Your task to perform on an android device: open app "Adobe Acrobat Reader" (install if not already installed) and go to login screen Image 0: 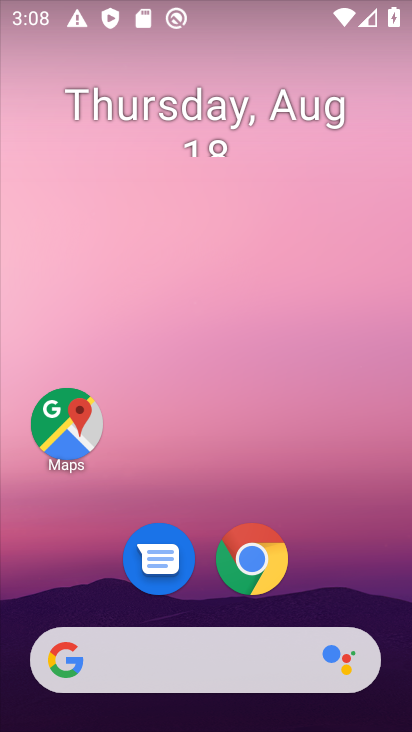
Step 0: drag from (285, 624) to (226, 2)
Your task to perform on an android device: open app "Adobe Acrobat Reader" (install if not already installed) and go to login screen Image 1: 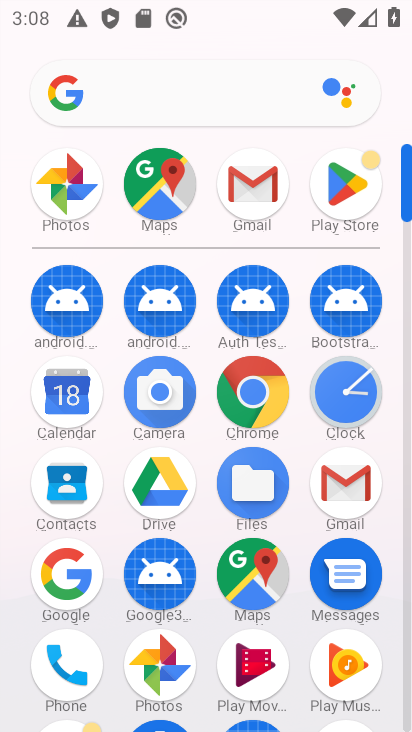
Step 1: click (340, 184)
Your task to perform on an android device: open app "Adobe Acrobat Reader" (install if not already installed) and go to login screen Image 2: 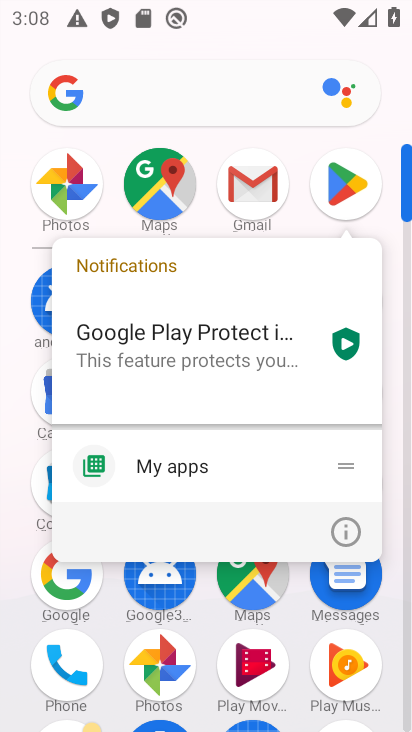
Step 2: click (346, 184)
Your task to perform on an android device: open app "Adobe Acrobat Reader" (install if not already installed) and go to login screen Image 3: 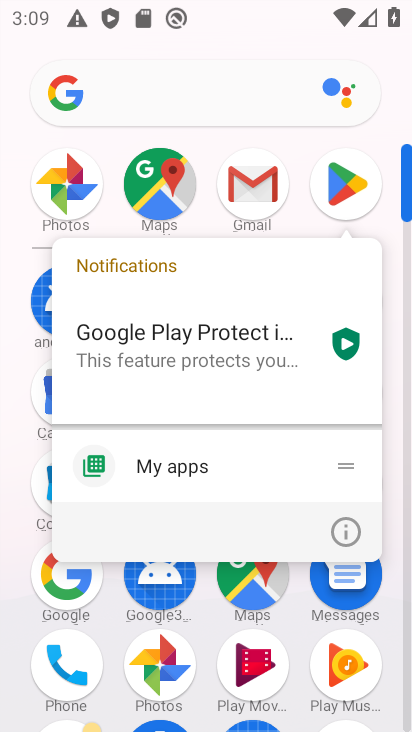
Step 3: click (347, 185)
Your task to perform on an android device: open app "Adobe Acrobat Reader" (install if not already installed) and go to login screen Image 4: 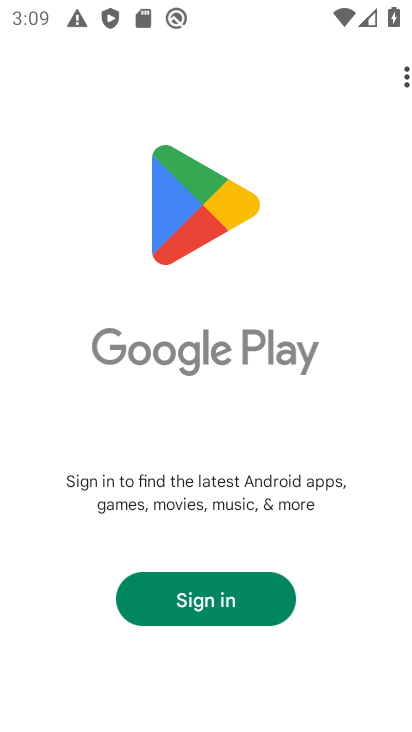
Step 4: click (242, 587)
Your task to perform on an android device: open app "Adobe Acrobat Reader" (install if not already installed) and go to login screen Image 5: 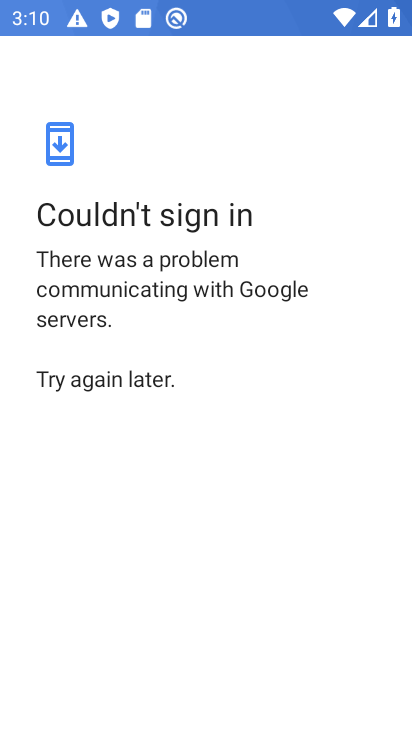
Step 5: task complete